Your task to perform on an android device: toggle pop-ups in chrome Image 0: 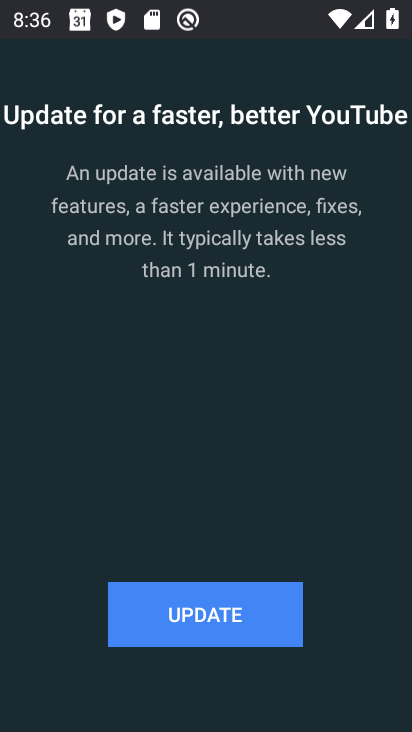
Step 0: press home button
Your task to perform on an android device: toggle pop-ups in chrome Image 1: 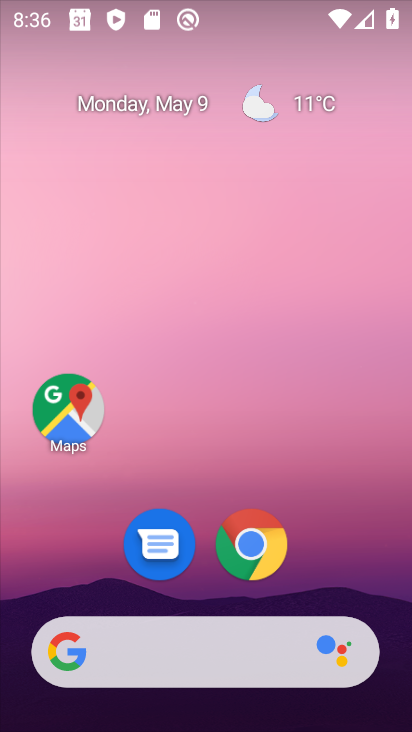
Step 1: click (255, 539)
Your task to perform on an android device: toggle pop-ups in chrome Image 2: 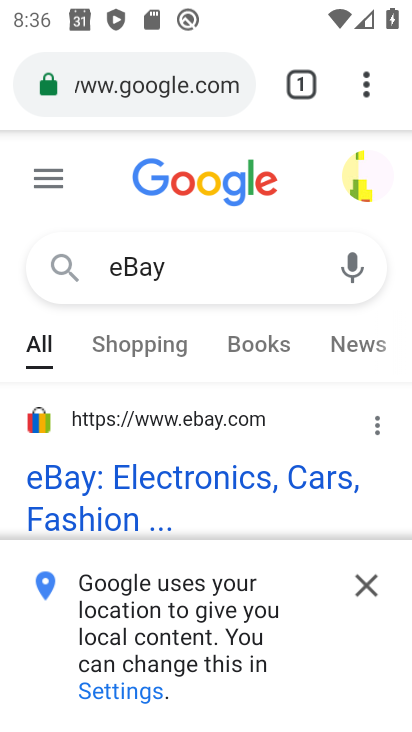
Step 2: click (361, 84)
Your task to perform on an android device: toggle pop-ups in chrome Image 3: 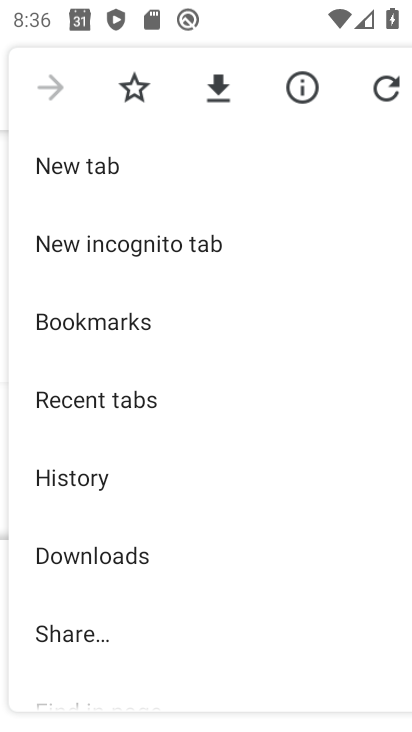
Step 3: drag from (234, 622) to (300, 208)
Your task to perform on an android device: toggle pop-ups in chrome Image 4: 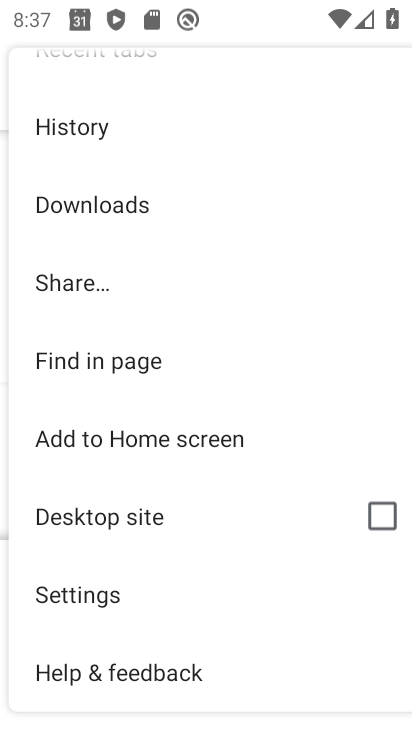
Step 4: drag from (270, 637) to (275, 438)
Your task to perform on an android device: toggle pop-ups in chrome Image 5: 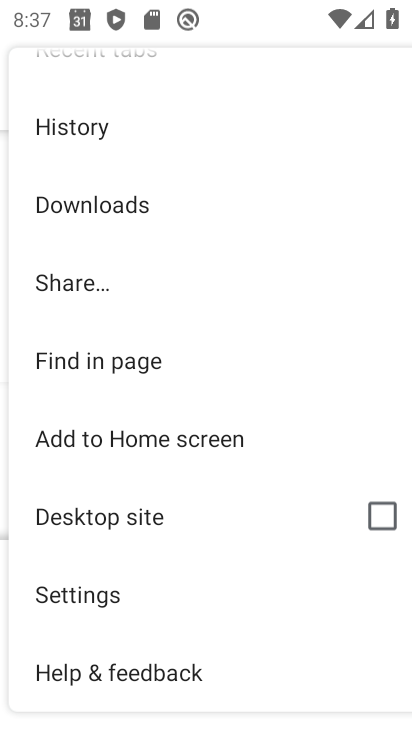
Step 5: click (56, 590)
Your task to perform on an android device: toggle pop-ups in chrome Image 6: 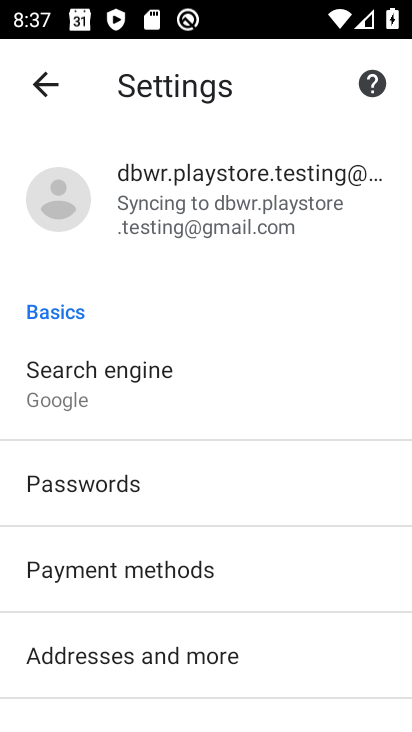
Step 6: drag from (328, 667) to (339, 374)
Your task to perform on an android device: toggle pop-ups in chrome Image 7: 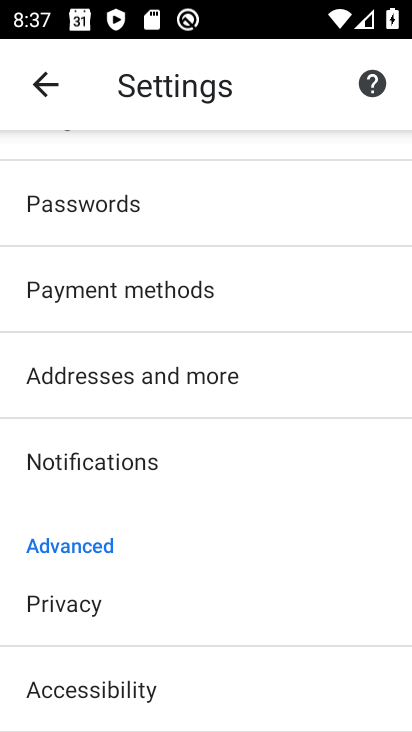
Step 7: drag from (288, 624) to (319, 411)
Your task to perform on an android device: toggle pop-ups in chrome Image 8: 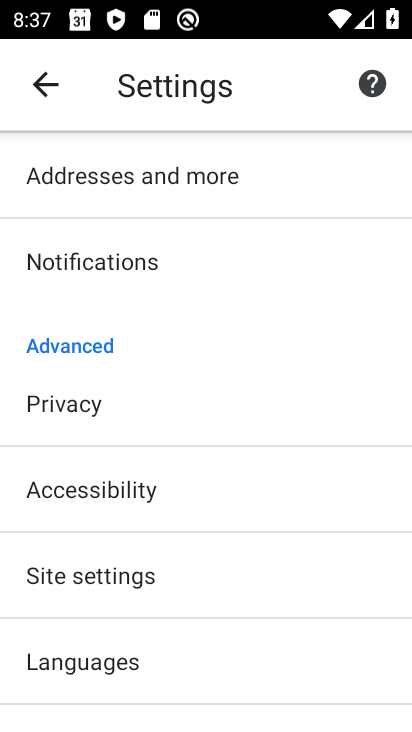
Step 8: click (104, 575)
Your task to perform on an android device: toggle pop-ups in chrome Image 9: 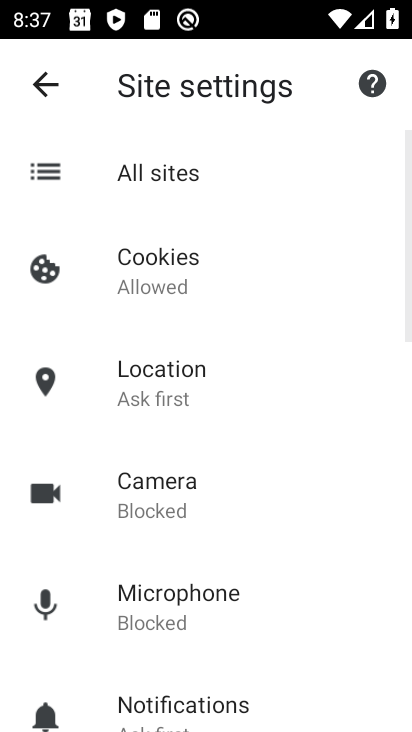
Step 9: drag from (321, 622) to (335, 341)
Your task to perform on an android device: toggle pop-ups in chrome Image 10: 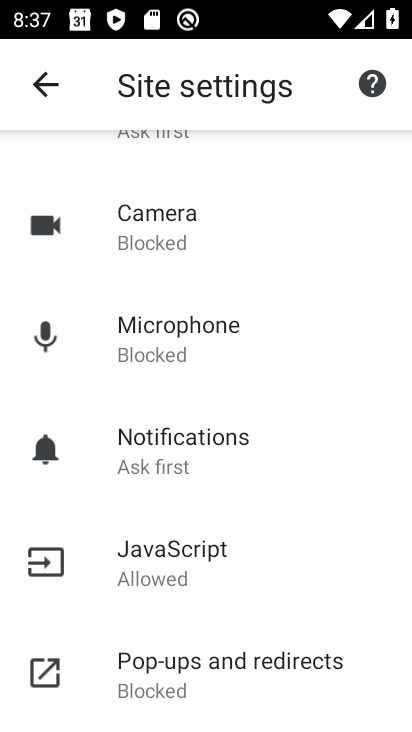
Step 10: drag from (303, 692) to (287, 350)
Your task to perform on an android device: toggle pop-ups in chrome Image 11: 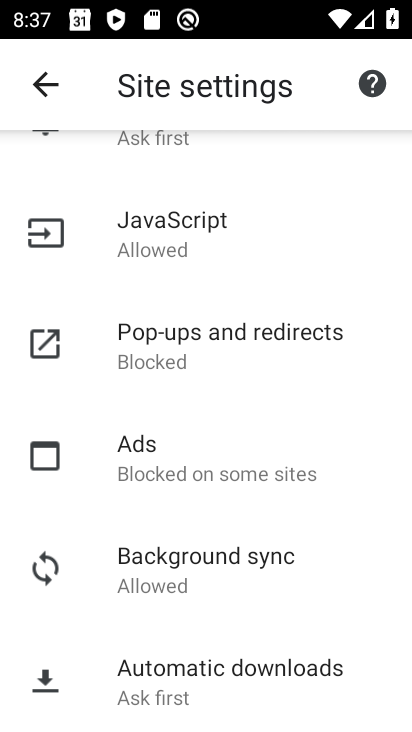
Step 11: click (216, 342)
Your task to perform on an android device: toggle pop-ups in chrome Image 12: 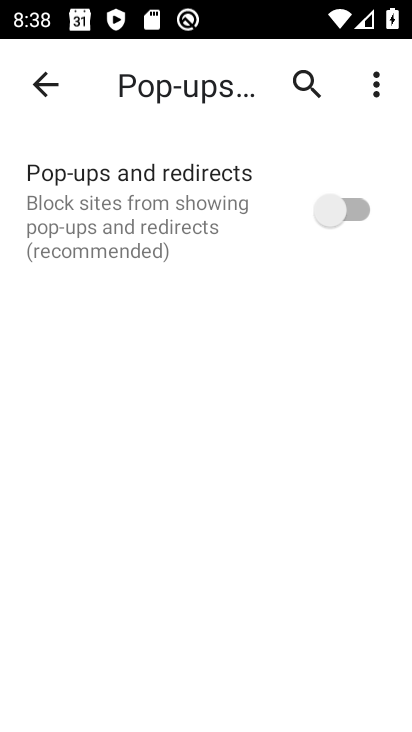
Step 12: click (364, 208)
Your task to perform on an android device: toggle pop-ups in chrome Image 13: 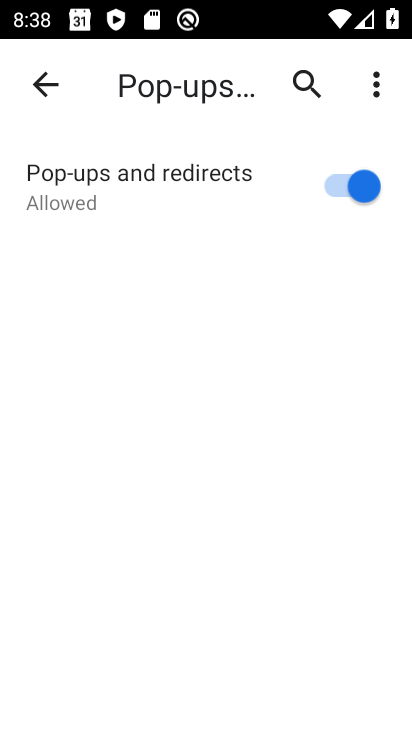
Step 13: task complete